Your task to perform on an android device: Is it going to rain this weekend? Image 0: 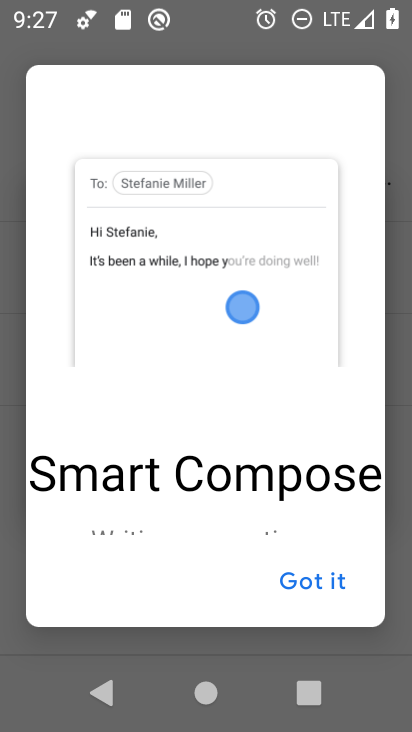
Step 0: press home button
Your task to perform on an android device: Is it going to rain this weekend? Image 1: 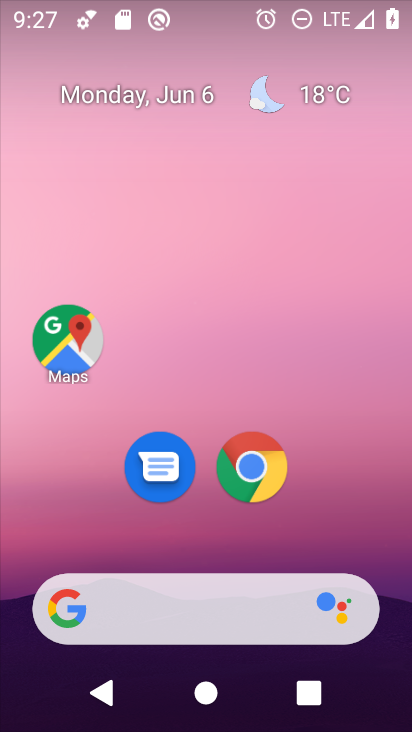
Step 1: click (306, 97)
Your task to perform on an android device: Is it going to rain this weekend? Image 2: 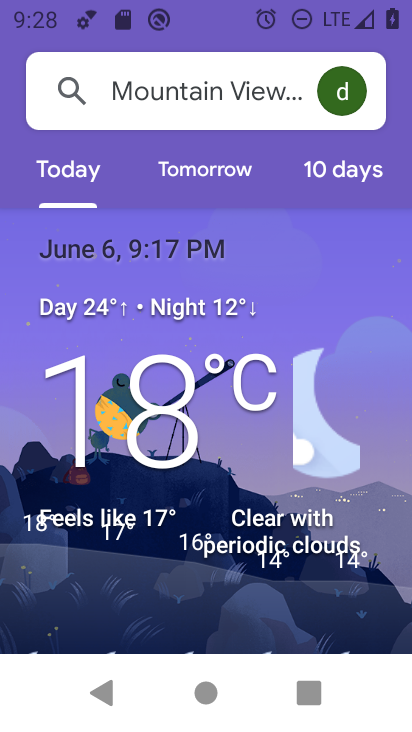
Step 2: click (353, 182)
Your task to perform on an android device: Is it going to rain this weekend? Image 3: 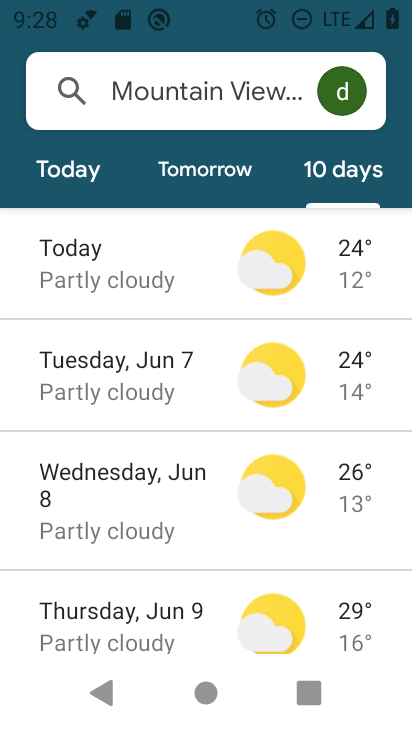
Step 3: drag from (215, 480) to (234, 373)
Your task to perform on an android device: Is it going to rain this weekend? Image 4: 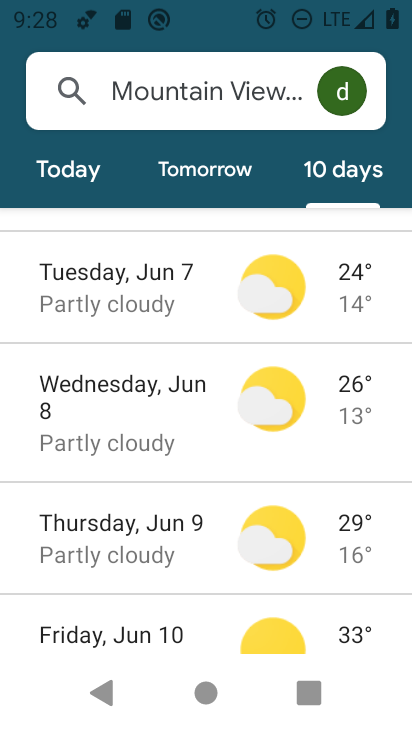
Step 4: drag from (216, 505) to (198, 275)
Your task to perform on an android device: Is it going to rain this weekend? Image 5: 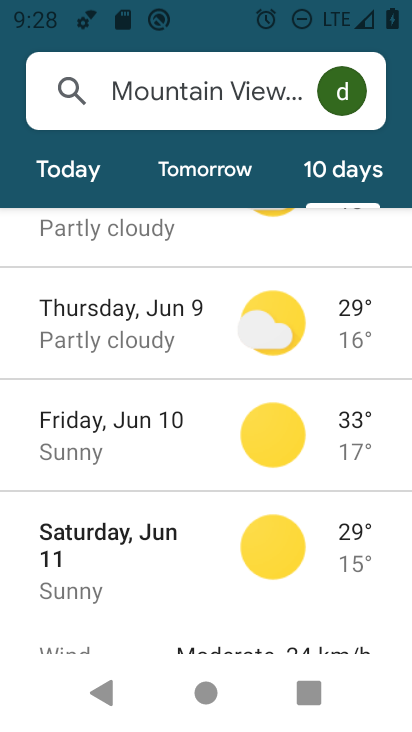
Step 5: click (169, 547)
Your task to perform on an android device: Is it going to rain this weekend? Image 6: 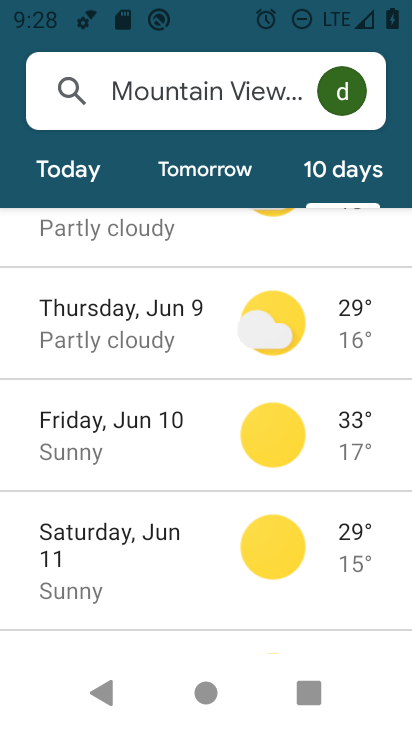
Step 6: task complete